Your task to perform on an android device: Search for Mexican restaurants on Maps Image 0: 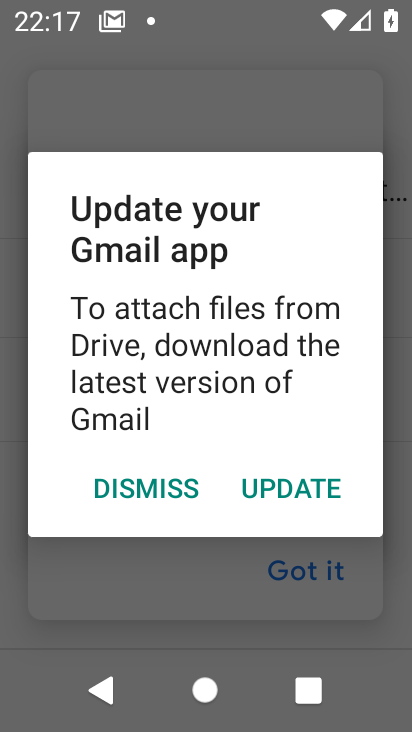
Step 0: press home button
Your task to perform on an android device: Search for Mexican restaurants on Maps Image 1: 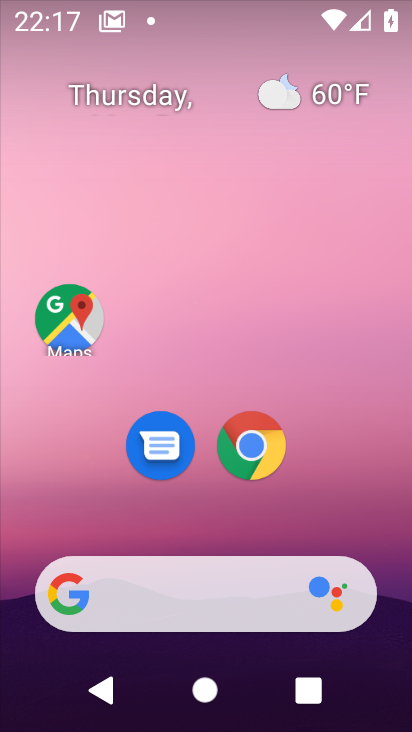
Step 1: click (68, 332)
Your task to perform on an android device: Search for Mexican restaurants on Maps Image 2: 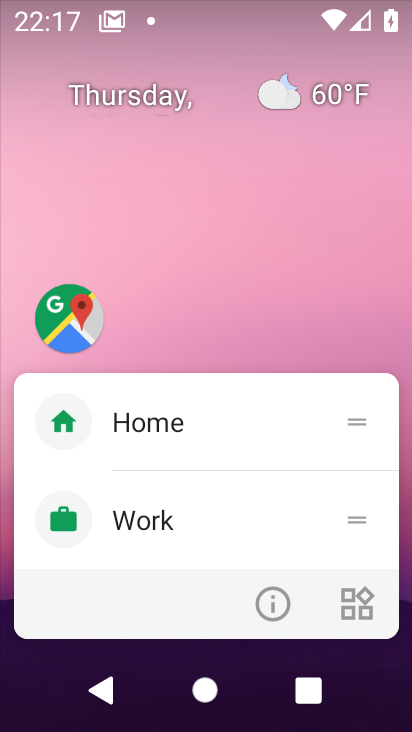
Step 2: click (80, 323)
Your task to perform on an android device: Search for Mexican restaurants on Maps Image 3: 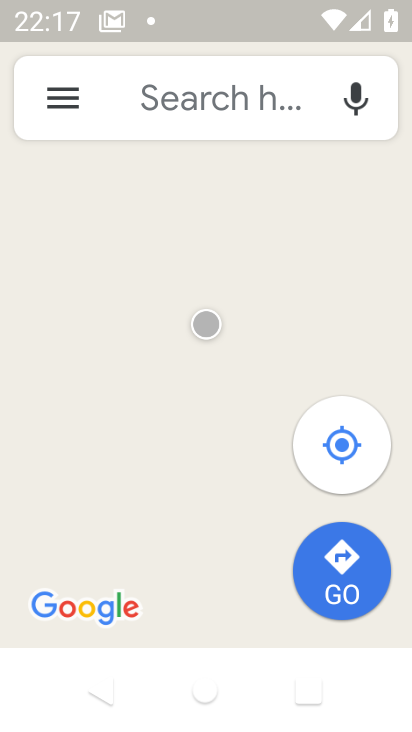
Step 3: click (212, 111)
Your task to perform on an android device: Search for Mexican restaurants on Maps Image 4: 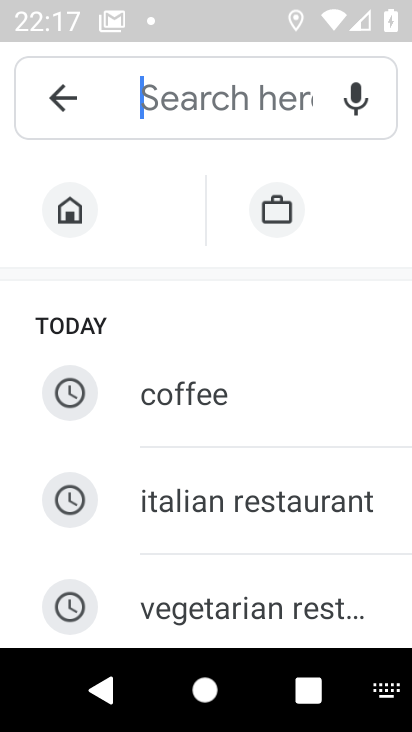
Step 4: type "mexican restaurants"
Your task to perform on an android device: Search for Mexican restaurants on Maps Image 5: 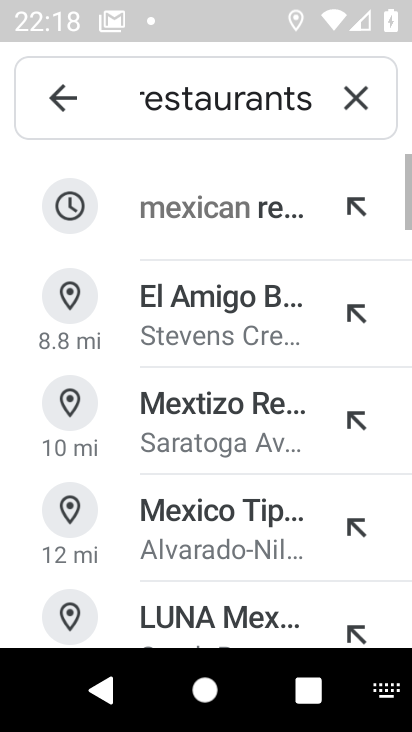
Step 5: click (251, 219)
Your task to perform on an android device: Search for Mexican restaurants on Maps Image 6: 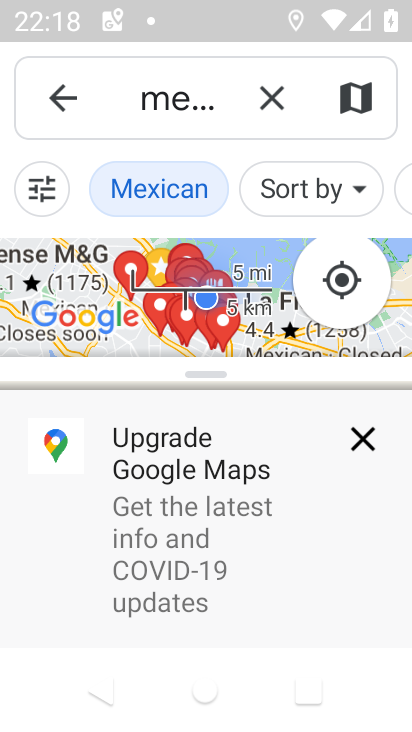
Step 6: task complete